Your task to perform on an android device: change notification settings in the gmail app Image 0: 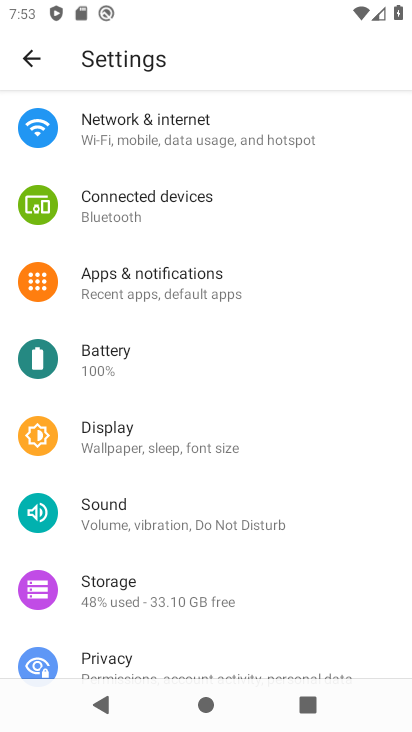
Step 0: drag from (212, 140) to (209, 573)
Your task to perform on an android device: change notification settings in the gmail app Image 1: 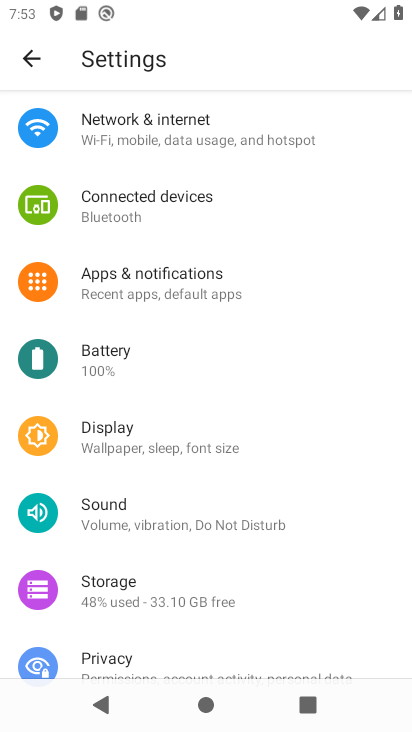
Step 1: drag from (168, 568) to (170, 379)
Your task to perform on an android device: change notification settings in the gmail app Image 2: 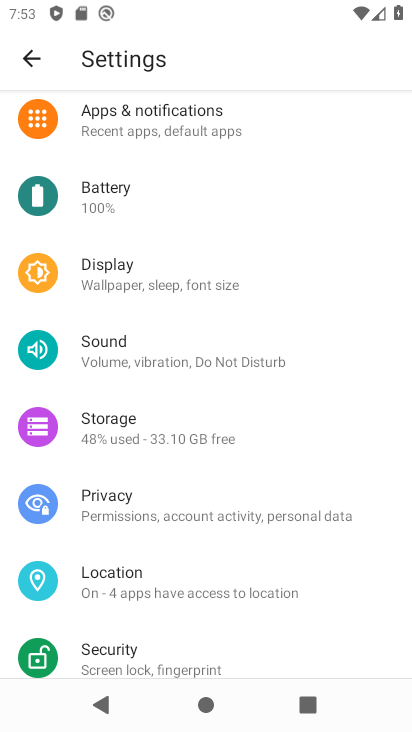
Step 2: click (152, 123)
Your task to perform on an android device: change notification settings in the gmail app Image 3: 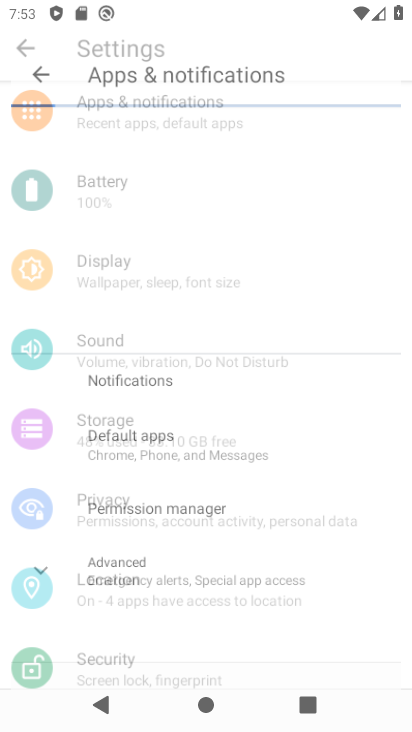
Step 3: click (180, 110)
Your task to perform on an android device: change notification settings in the gmail app Image 4: 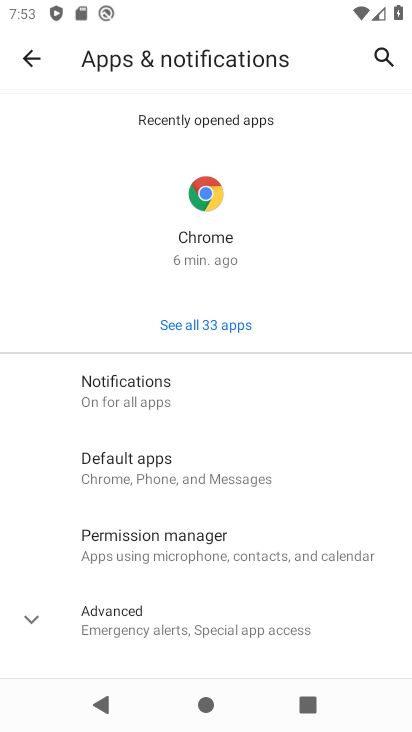
Step 4: click (138, 381)
Your task to perform on an android device: change notification settings in the gmail app Image 5: 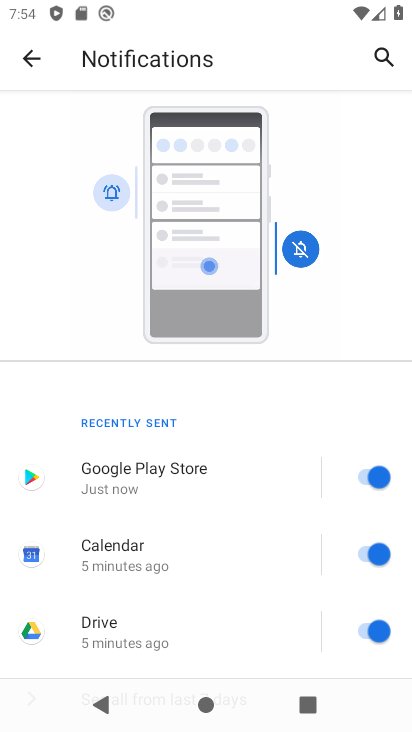
Step 5: drag from (197, 655) to (220, 403)
Your task to perform on an android device: change notification settings in the gmail app Image 6: 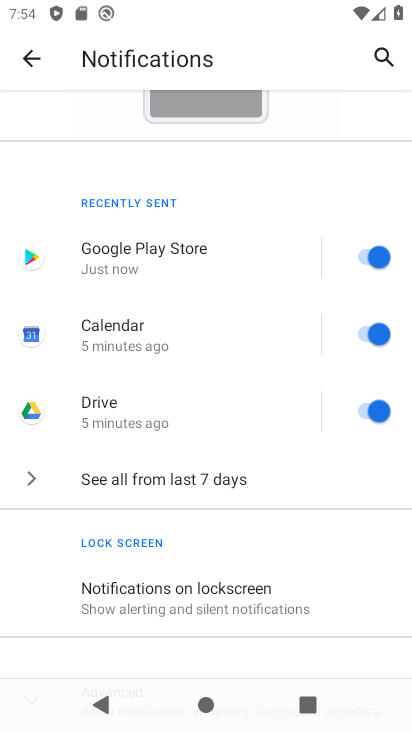
Step 6: drag from (219, 627) to (239, 398)
Your task to perform on an android device: change notification settings in the gmail app Image 7: 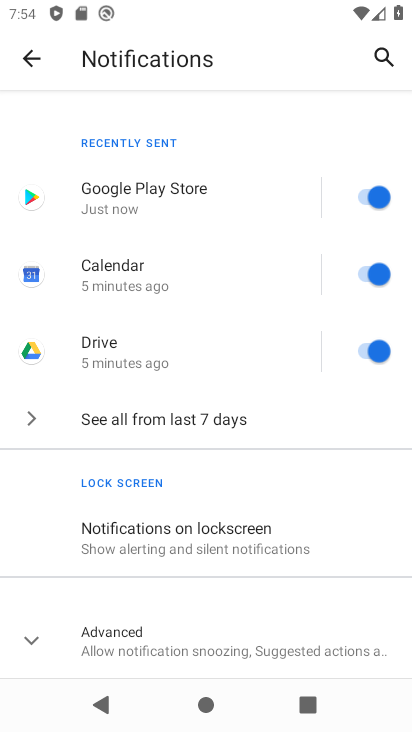
Step 7: drag from (240, 582) to (240, 400)
Your task to perform on an android device: change notification settings in the gmail app Image 8: 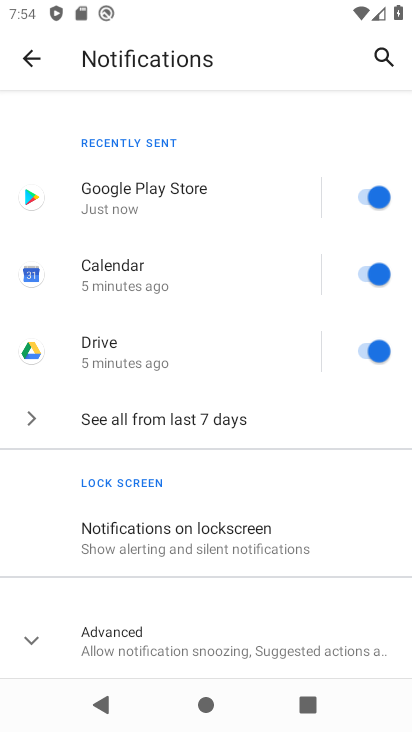
Step 8: click (153, 630)
Your task to perform on an android device: change notification settings in the gmail app Image 9: 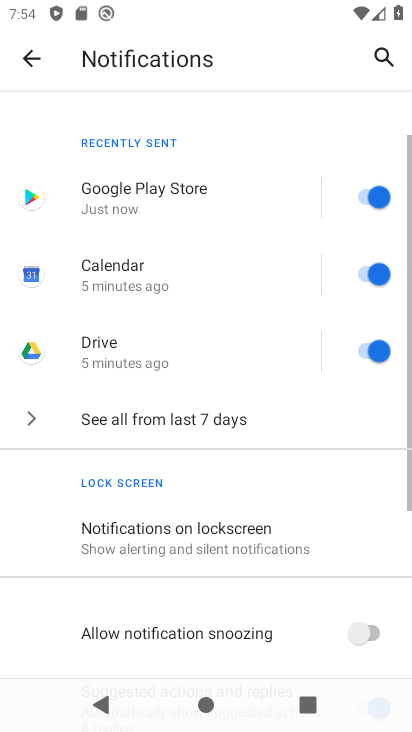
Step 9: drag from (199, 647) to (227, 456)
Your task to perform on an android device: change notification settings in the gmail app Image 10: 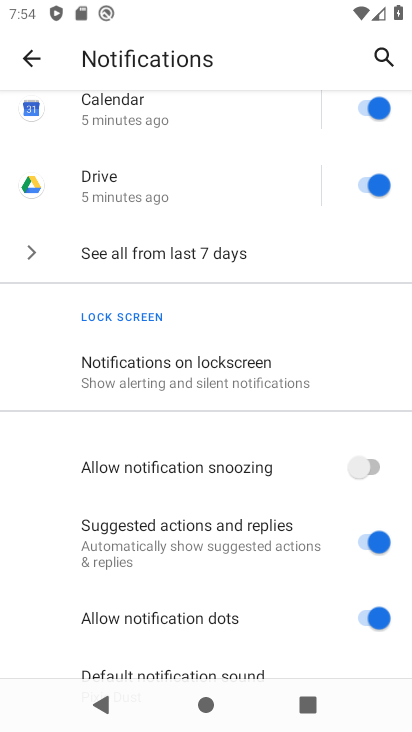
Step 10: click (374, 471)
Your task to perform on an android device: change notification settings in the gmail app Image 11: 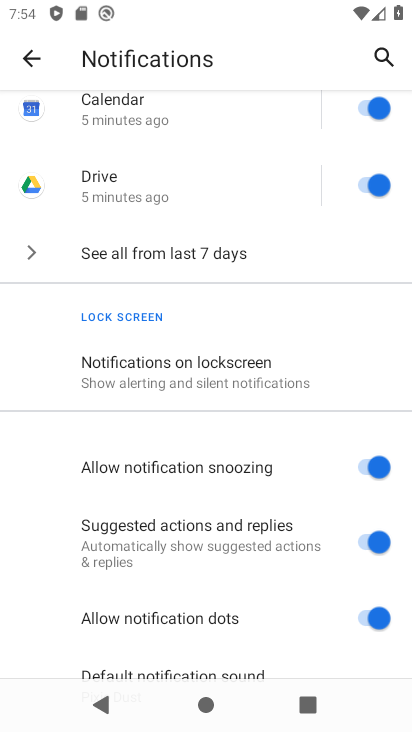
Step 11: task complete